Your task to perform on an android device: read, delete, or share a saved page in the chrome app Image 0: 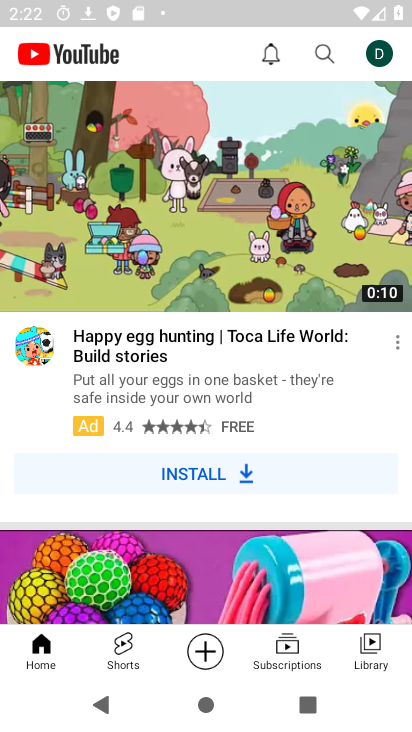
Step 0: press home button
Your task to perform on an android device: read, delete, or share a saved page in the chrome app Image 1: 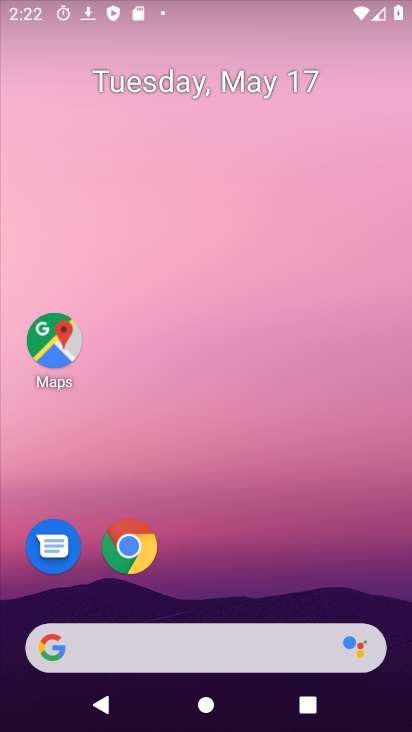
Step 1: drag from (215, 690) to (227, 196)
Your task to perform on an android device: read, delete, or share a saved page in the chrome app Image 2: 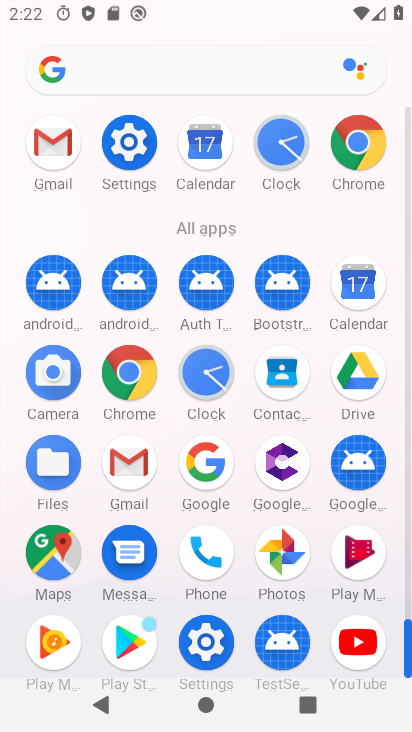
Step 2: click (369, 178)
Your task to perform on an android device: read, delete, or share a saved page in the chrome app Image 3: 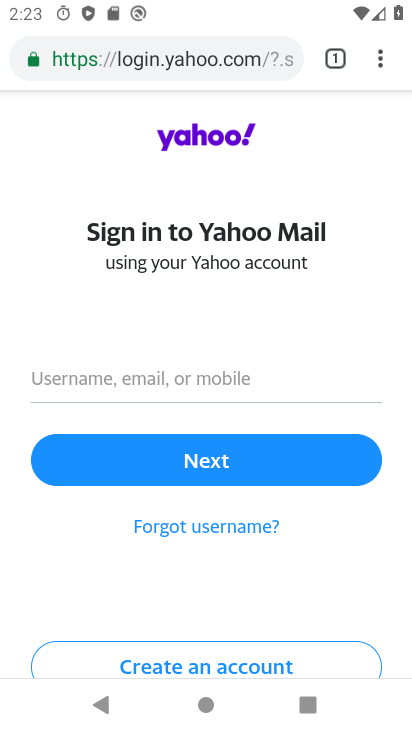
Step 3: click (387, 59)
Your task to perform on an android device: read, delete, or share a saved page in the chrome app Image 4: 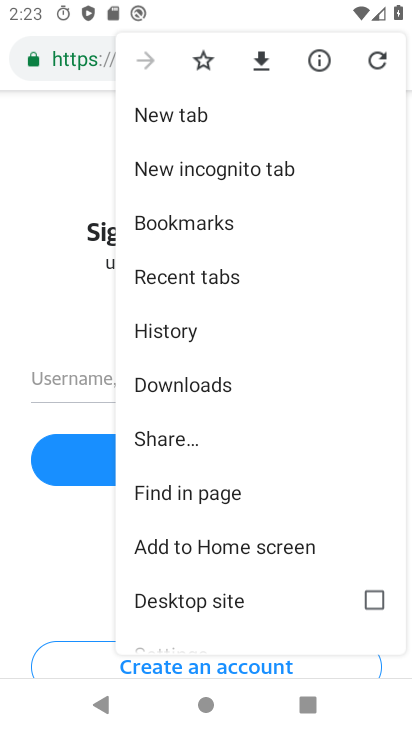
Step 4: click (218, 388)
Your task to perform on an android device: read, delete, or share a saved page in the chrome app Image 5: 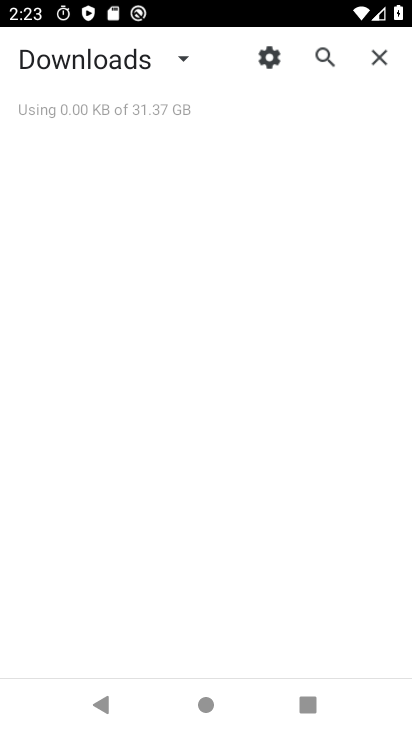
Step 5: click (138, 61)
Your task to perform on an android device: read, delete, or share a saved page in the chrome app Image 6: 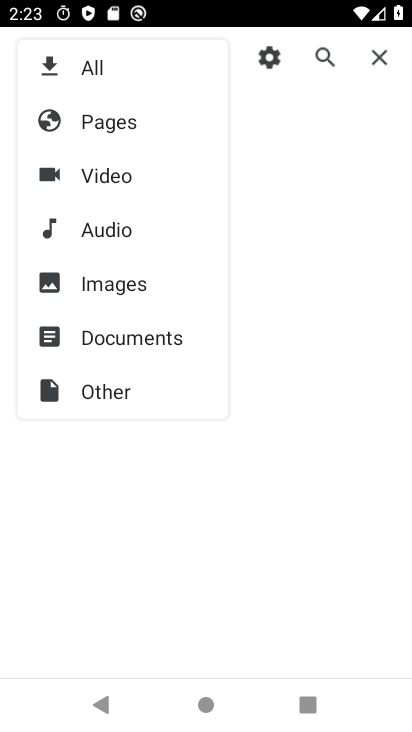
Step 6: click (117, 127)
Your task to perform on an android device: read, delete, or share a saved page in the chrome app Image 7: 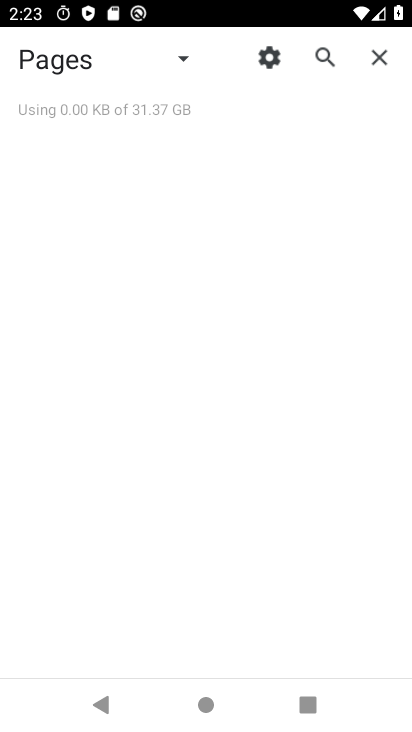
Step 7: task complete